Your task to perform on an android device: check the backup settings in the google photos Image 0: 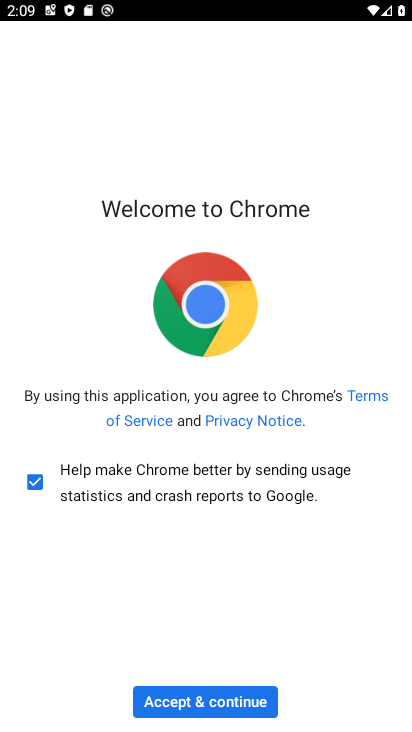
Step 0: press home button
Your task to perform on an android device: check the backup settings in the google photos Image 1: 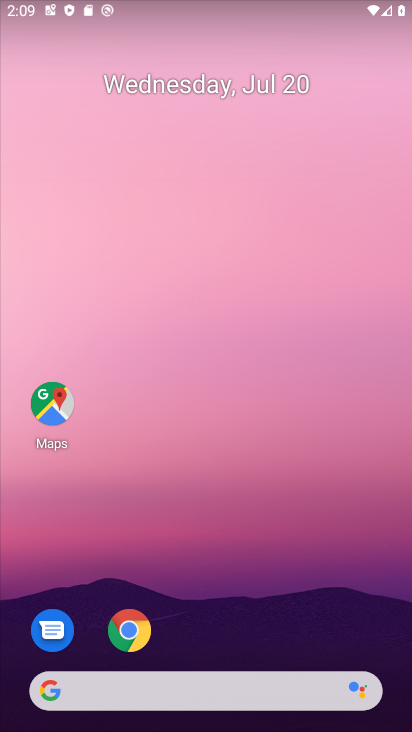
Step 1: drag from (336, 608) to (373, 144)
Your task to perform on an android device: check the backup settings in the google photos Image 2: 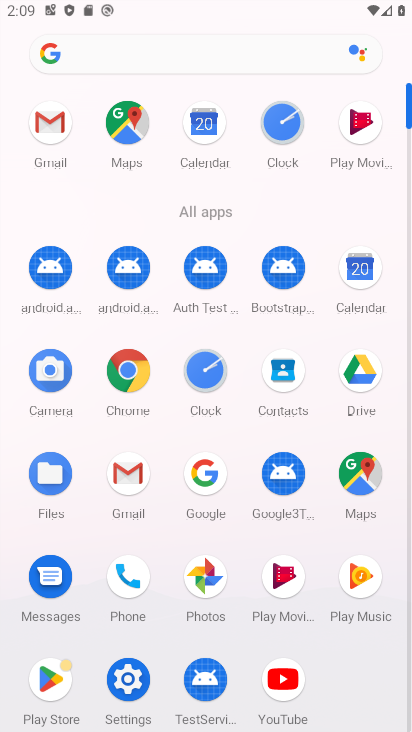
Step 2: click (210, 571)
Your task to perform on an android device: check the backup settings in the google photos Image 3: 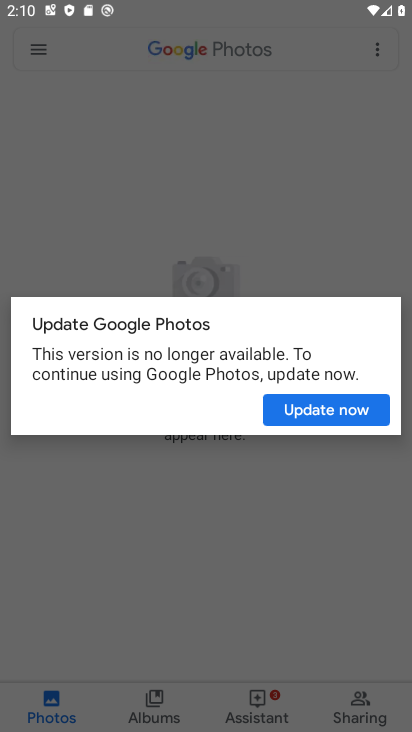
Step 3: click (356, 418)
Your task to perform on an android device: check the backup settings in the google photos Image 4: 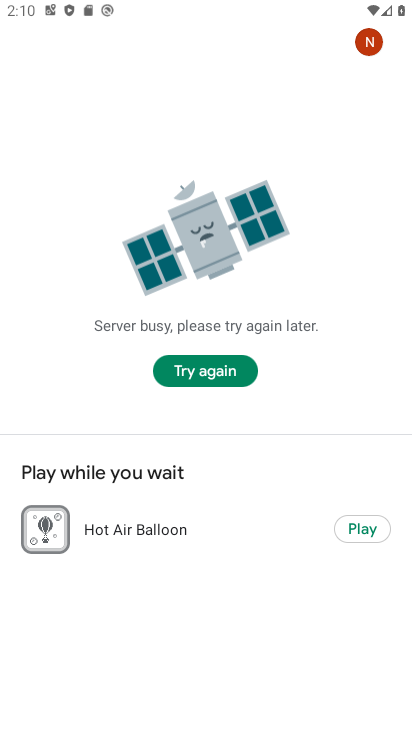
Step 4: task complete